Your task to perform on an android device: Go to wifi settings Image 0: 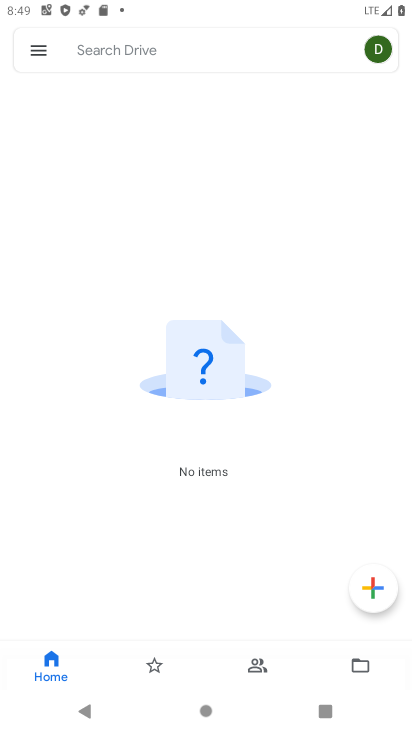
Step 0: press home button
Your task to perform on an android device: Go to wifi settings Image 1: 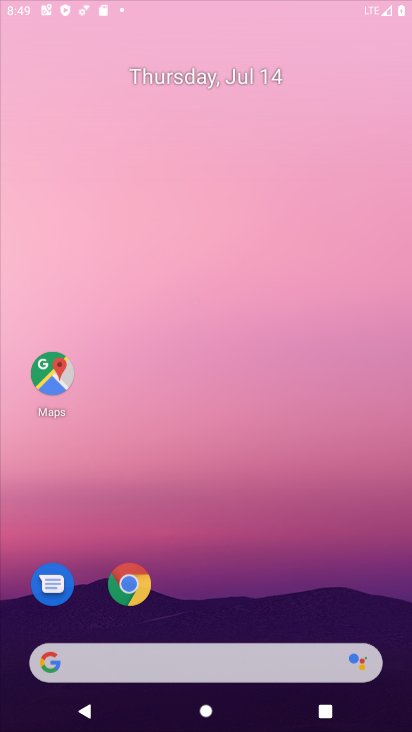
Step 1: drag from (401, 658) to (283, 43)
Your task to perform on an android device: Go to wifi settings Image 2: 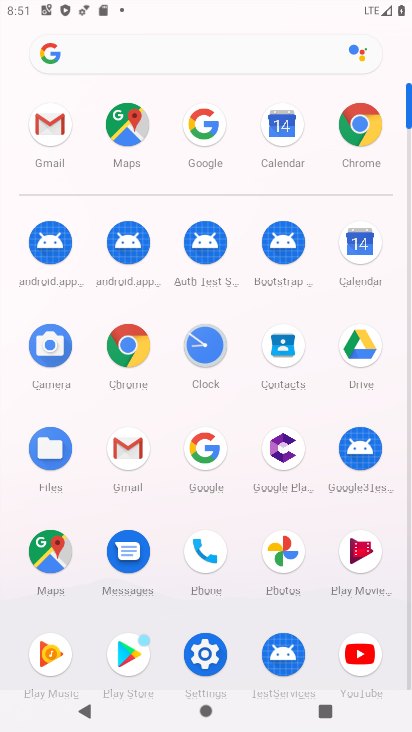
Step 2: click (223, 655)
Your task to perform on an android device: Go to wifi settings Image 3: 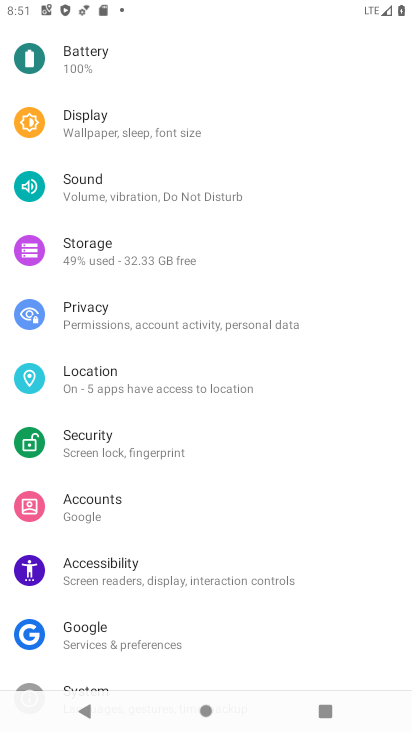
Step 3: drag from (108, 88) to (149, 677)
Your task to perform on an android device: Go to wifi settings Image 4: 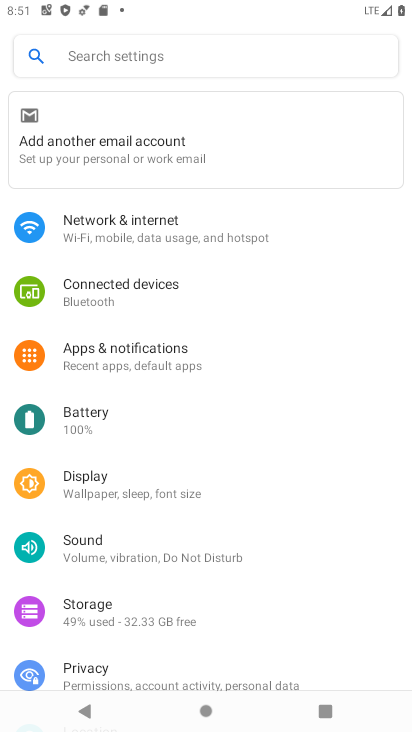
Step 4: click (129, 239)
Your task to perform on an android device: Go to wifi settings Image 5: 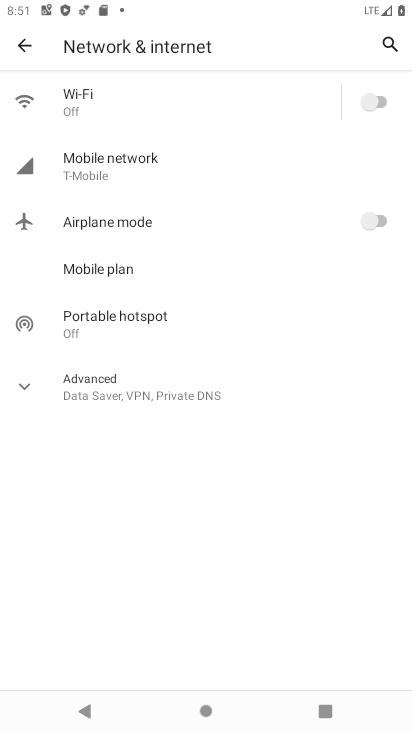
Step 5: click (131, 108)
Your task to perform on an android device: Go to wifi settings Image 6: 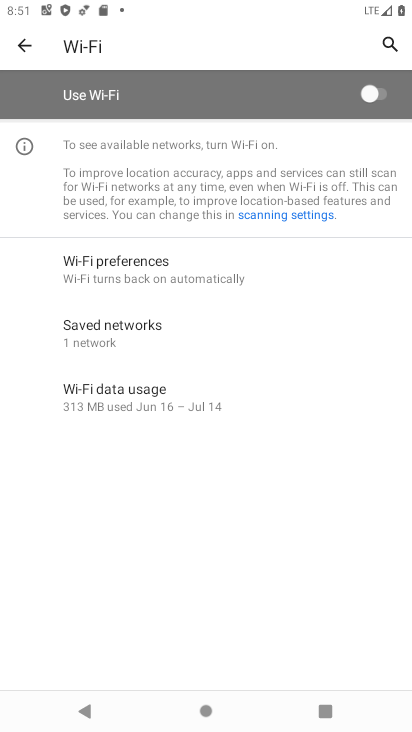
Step 6: task complete